Your task to perform on an android device: find which apps use the phone's location Image 0: 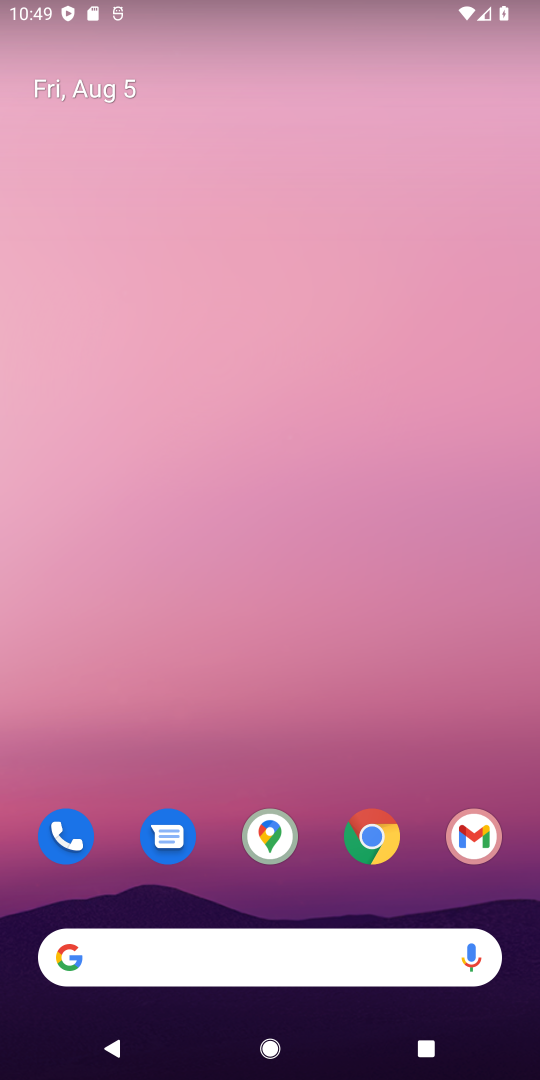
Step 0: drag from (344, 636) to (378, 156)
Your task to perform on an android device: find which apps use the phone's location Image 1: 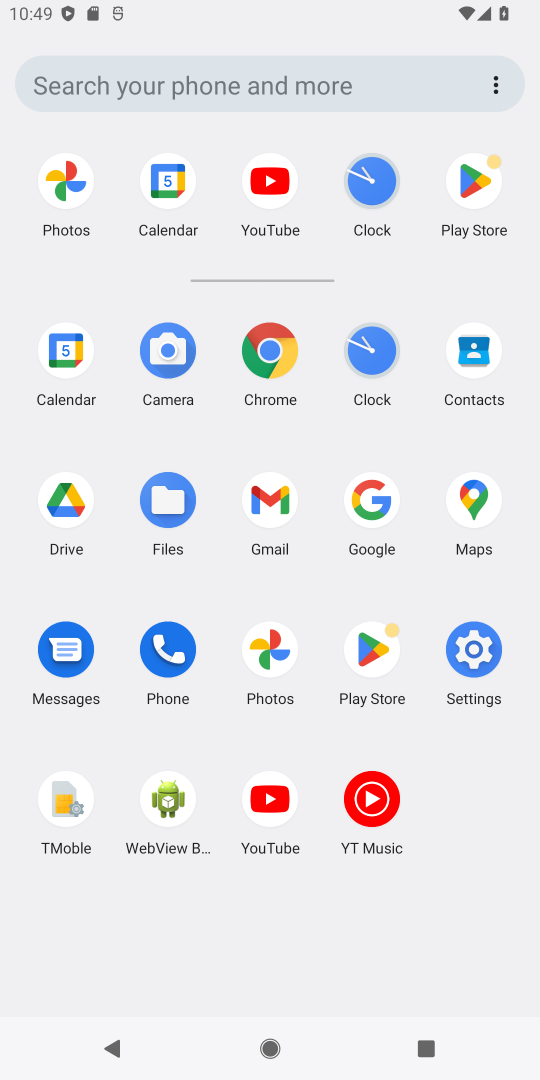
Step 1: click (484, 639)
Your task to perform on an android device: find which apps use the phone's location Image 2: 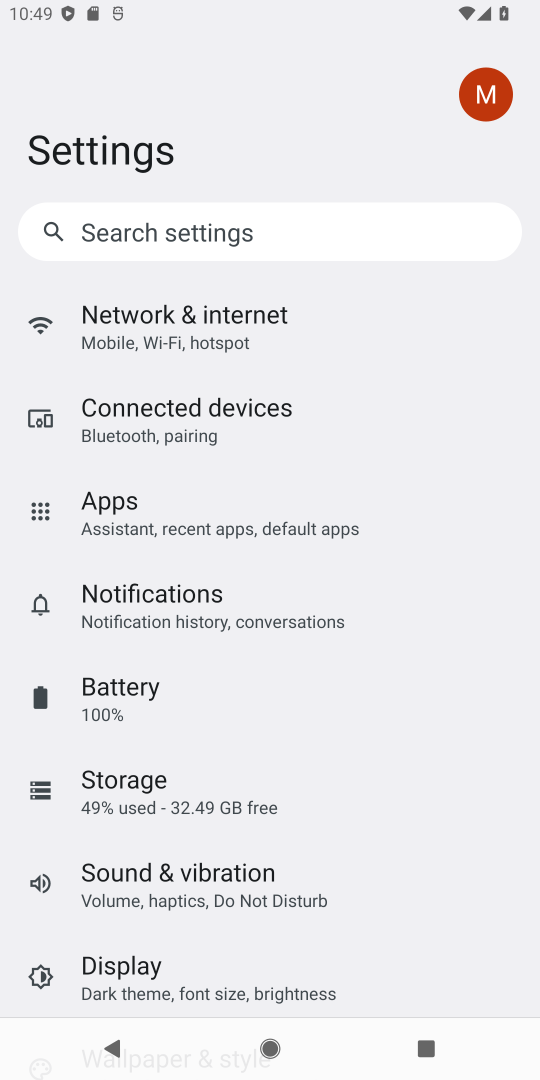
Step 2: drag from (317, 856) to (331, 415)
Your task to perform on an android device: find which apps use the phone's location Image 3: 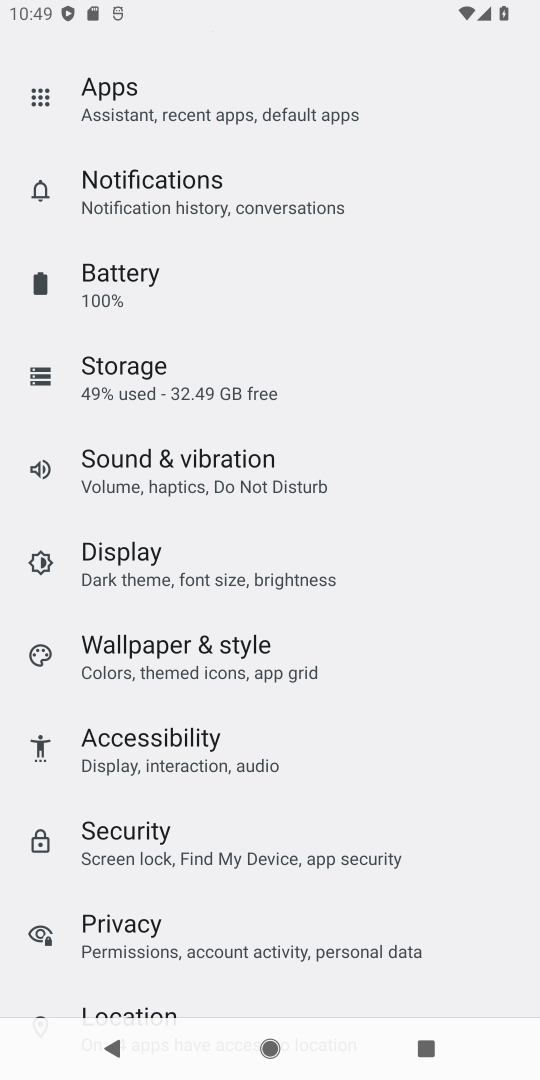
Step 3: click (146, 1009)
Your task to perform on an android device: find which apps use the phone's location Image 4: 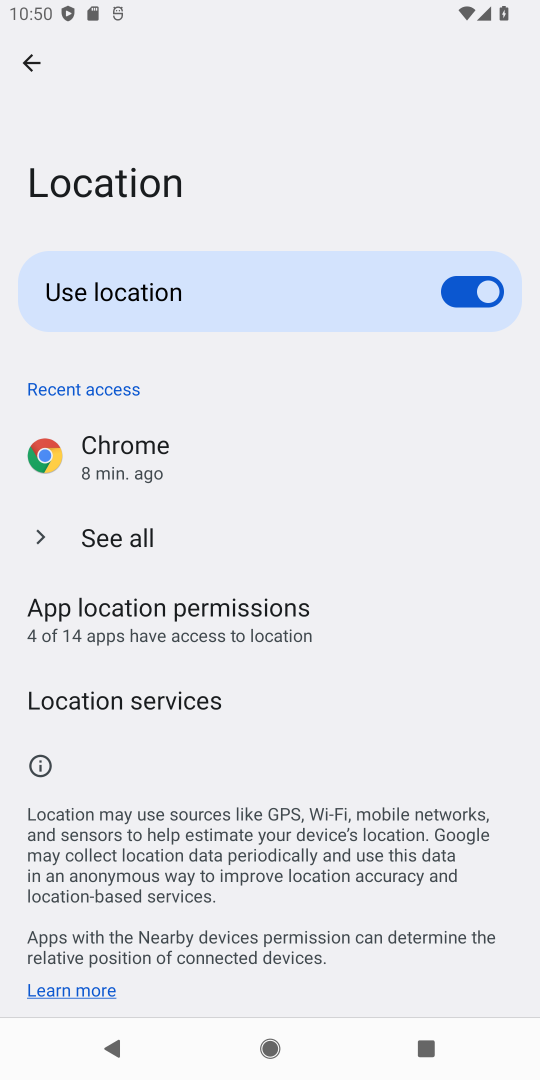
Step 4: click (192, 608)
Your task to perform on an android device: find which apps use the phone's location Image 5: 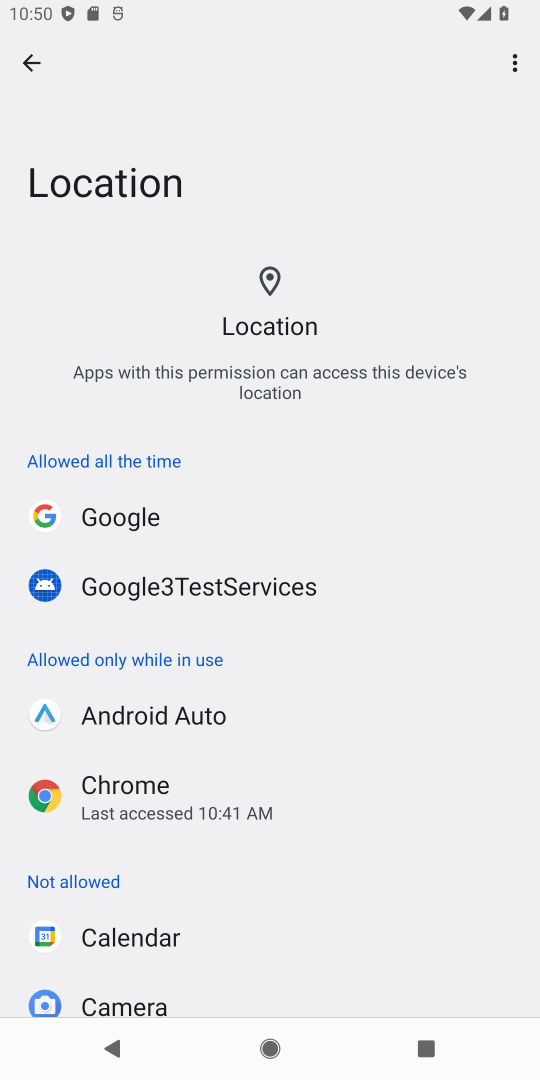
Step 5: task complete